Your task to perform on an android device: move an email to a new category in the gmail app Image 0: 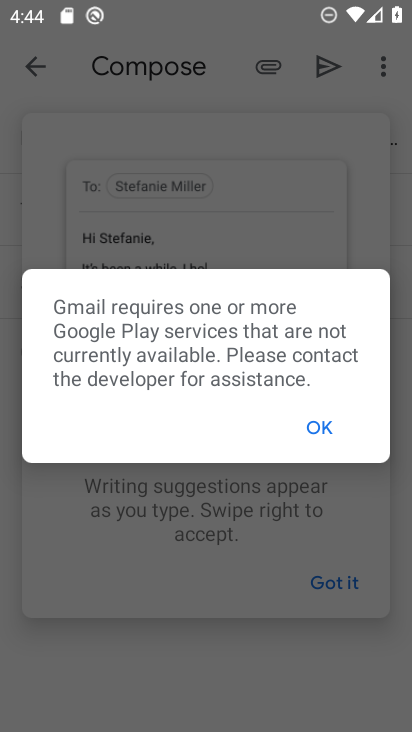
Step 0: press home button
Your task to perform on an android device: move an email to a new category in the gmail app Image 1: 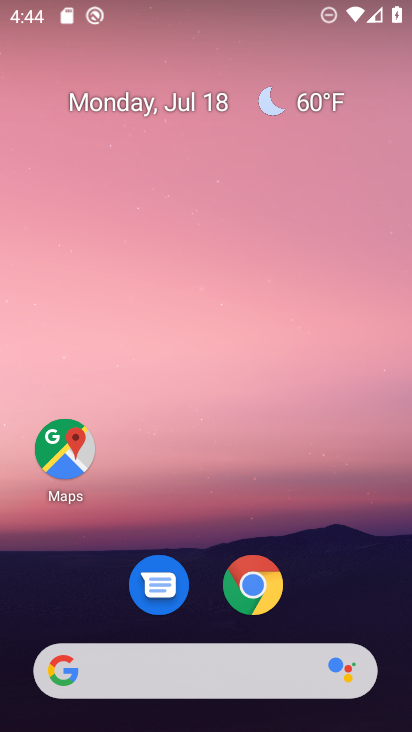
Step 1: drag from (333, 584) to (384, 57)
Your task to perform on an android device: move an email to a new category in the gmail app Image 2: 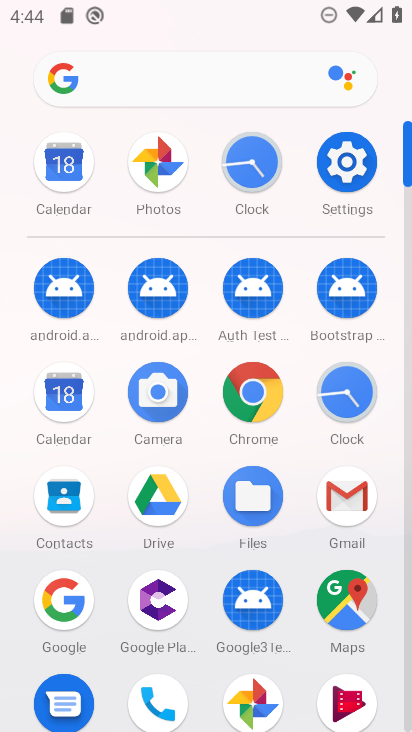
Step 2: click (340, 485)
Your task to perform on an android device: move an email to a new category in the gmail app Image 3: 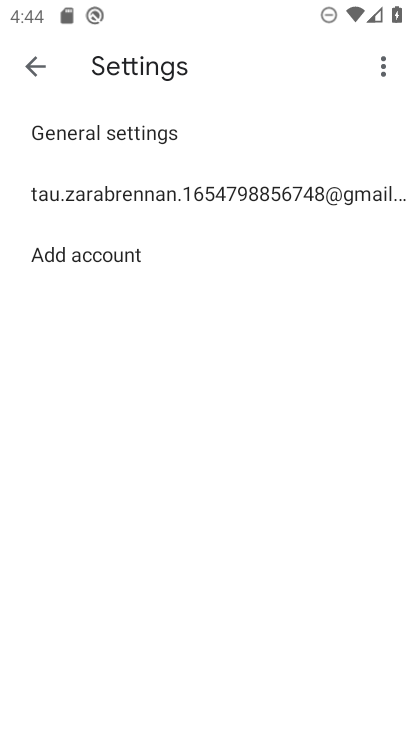
Step 3: click (45, 61)
Your task to perform on an android device: move an email to a new category in the gmail app Image 4: 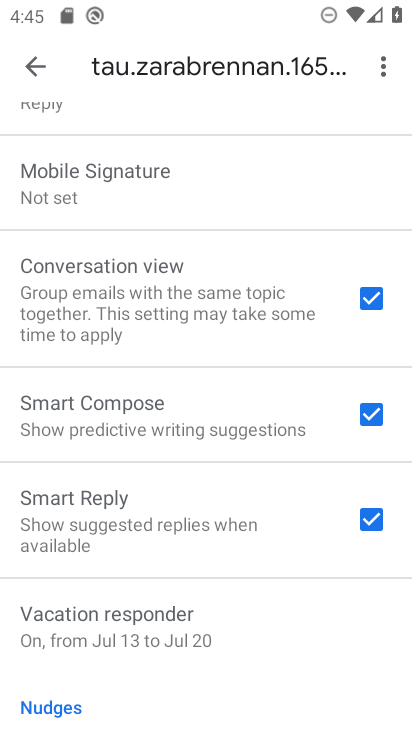
Step 4: click (31, 56)
Your task to perform on an android device: move an email to a new category in the gmail app Image 5: 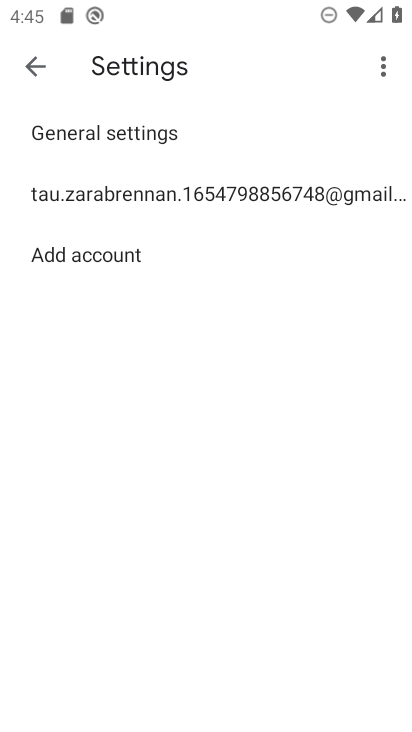
Step 5: click (32, 57)
Your task to perform on an android device: move an email to a new category in the gmail app Image 6: 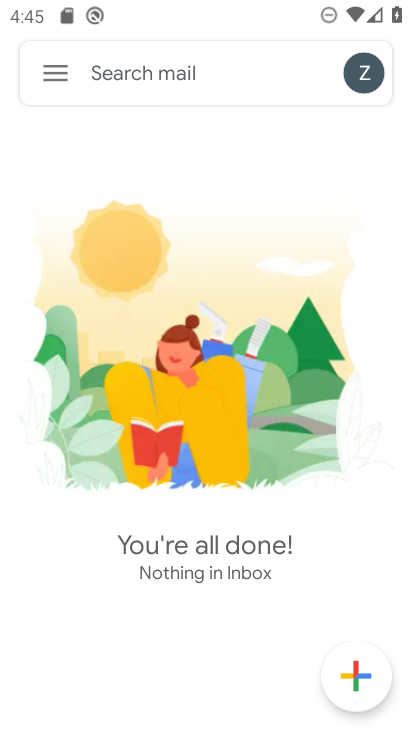
Step 6: click (54, 72)
Your task to perform on an android device: move an email to a new category in the gmail app Image 7: 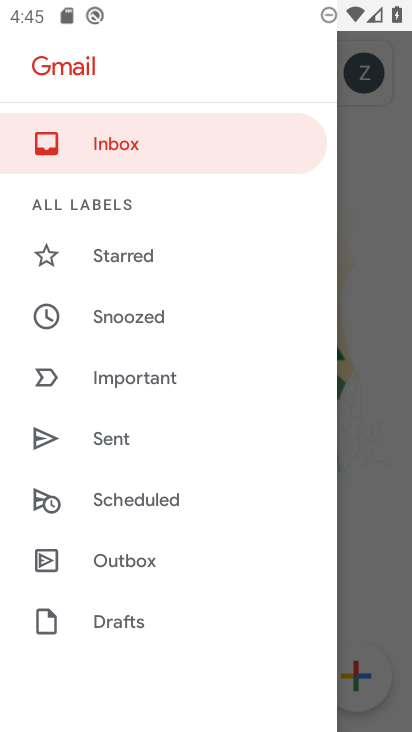
Step 7: drag from (200, 523) to (199, 124)
Your task to perform on an android device: move an email to a new category in the gmail app Image 8: 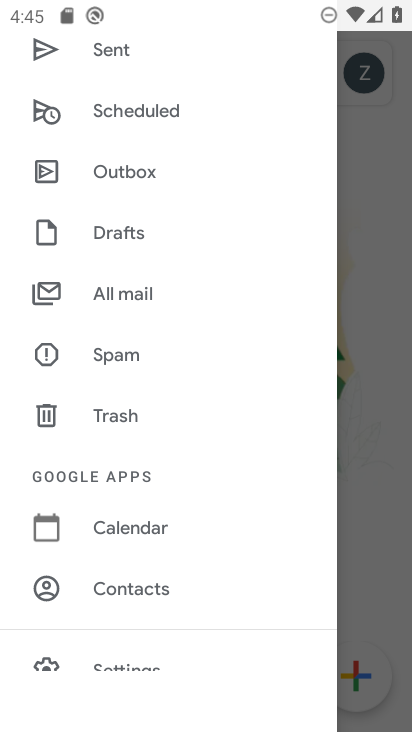
Step 8: click (132, 283)
Your task to perform on an android device: move an email to a new category in the gmail app Image 9: 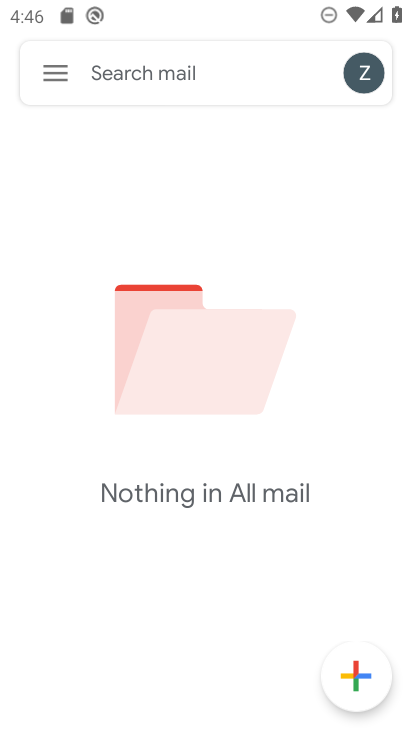
Step 9: task complete